Your task to perform on an android device: turn off wifi Image 0: 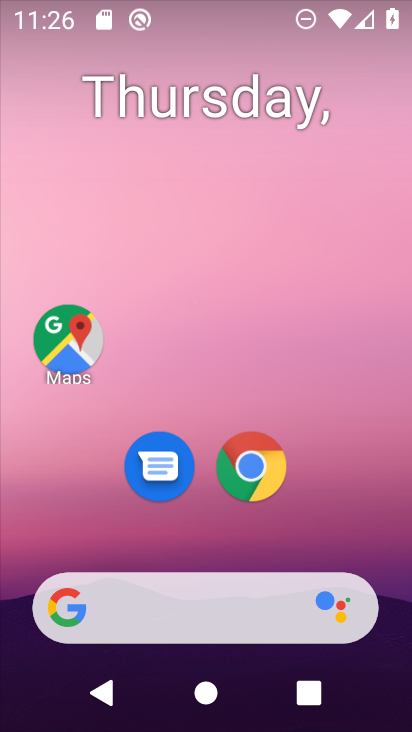
Step 0: drag from (214, 641) to (195, 1)
Your task to perform on an android device: turn off wifi Image 1: 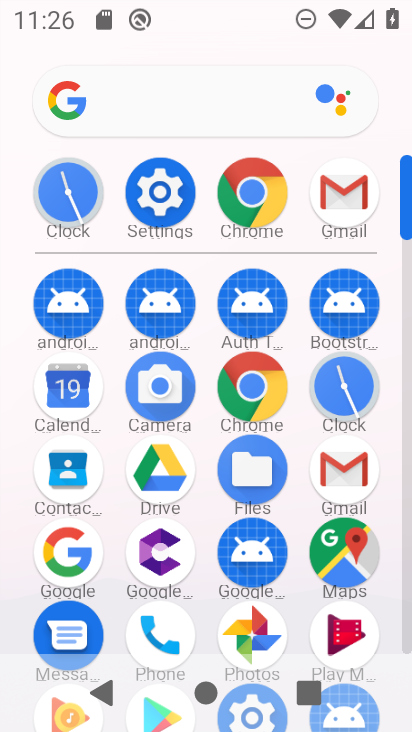
Step 1: click (168, 166)
Your task to perform on an android device: turn off wifi Image 2: 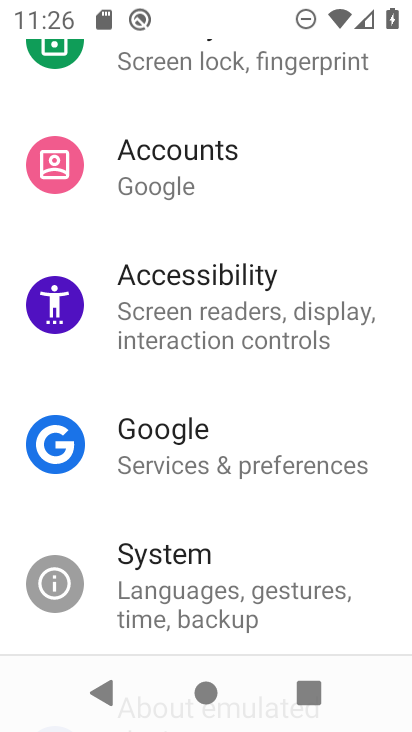
Step 2: drag from (189, 213) to (263, 583)
Your task to perform on an android device: turn off wifi Image 3: 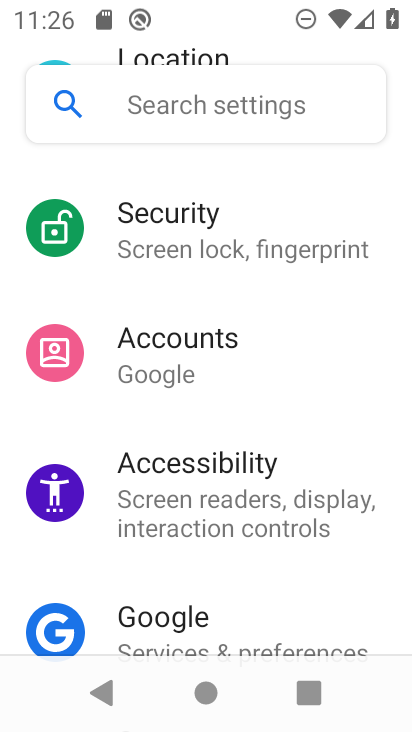
Step 3: drag from (257, 334) to (275, 559)
Your task to perform on an android device: turn off wifi Image 4: 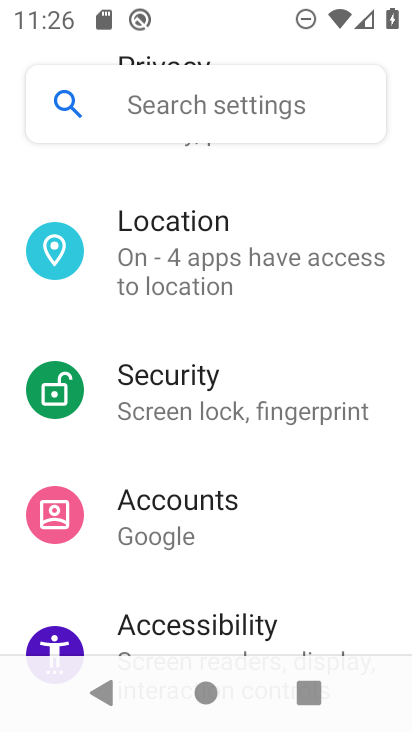
Step 4: drag from (257, 339) to (372, 725)
Your task to perform on an android device: turn off wifi Image 5: 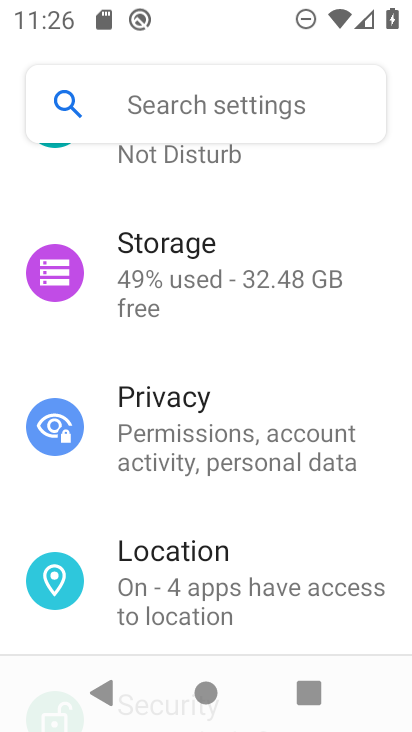
Step 5: drag from (306, 391) to (321, 633)
Your task to perform on an android device: turn off wifi Image 6: 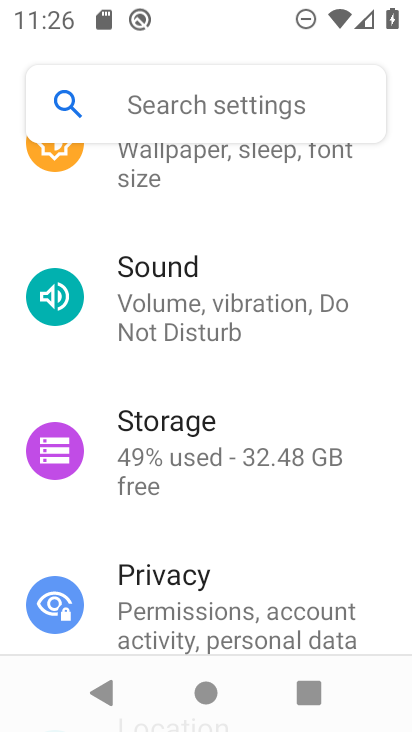
Step 6: drag from (274, 408) to (325, 728)
Your task to perform on an android device: turn off wifi Image 7: 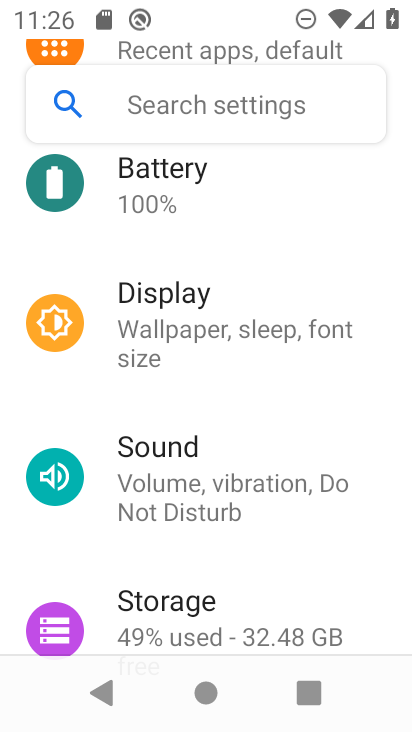
Step 7: drag from (261, 393) to (287, 664)
Your task to perform on an android device: turn off wifi Image 8: 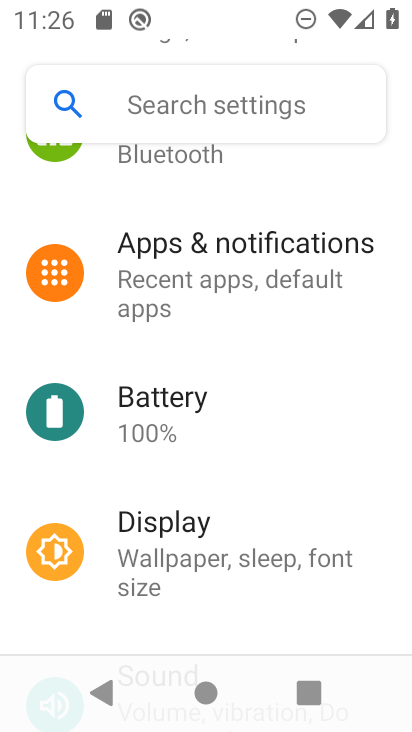
Step 8: drag from (230, 346) to (203, 639)
Your task to perform on an android device: turn off wifi Image 9: 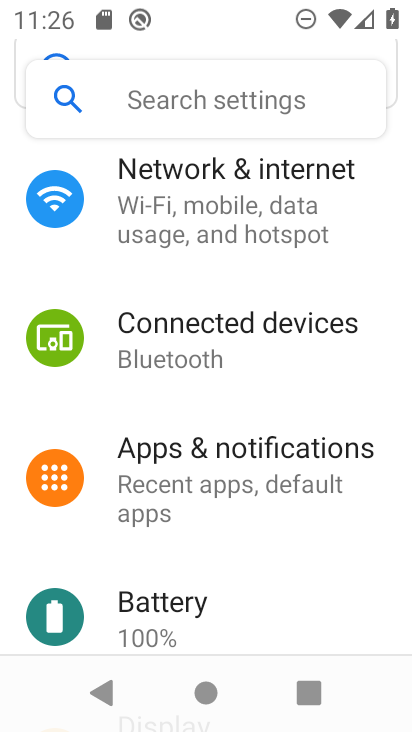
Step 9: click (158, 192)
Your task to perform on an android device: turn off wifi Image 10: 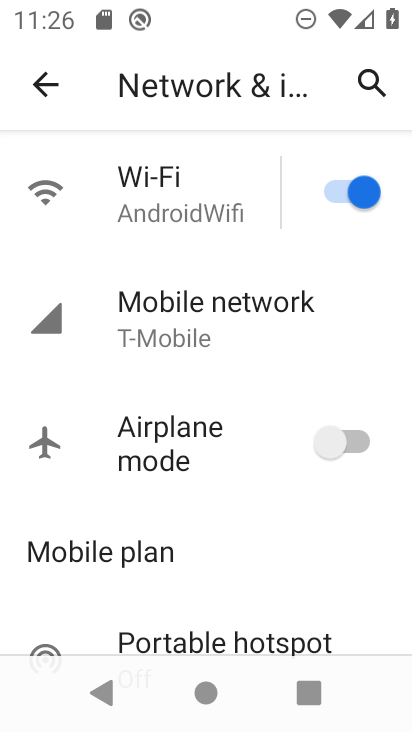
Step 10: click (357, 192)
Your task to perform on an android device: turn off wifi Image 11: 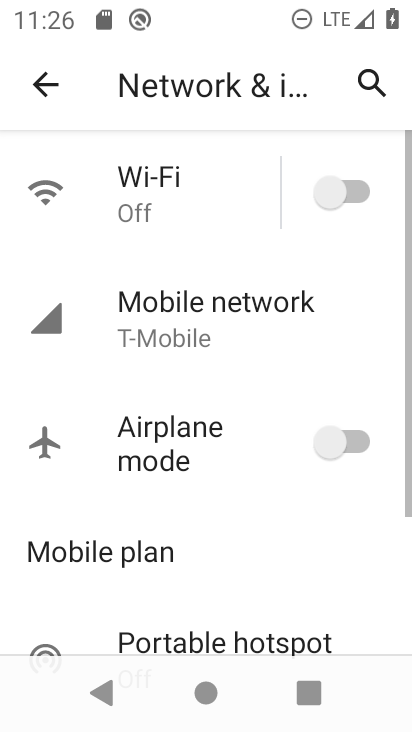
Step 11: task complete